Your task to perform on an android device: When is my next meeting? Image 0: 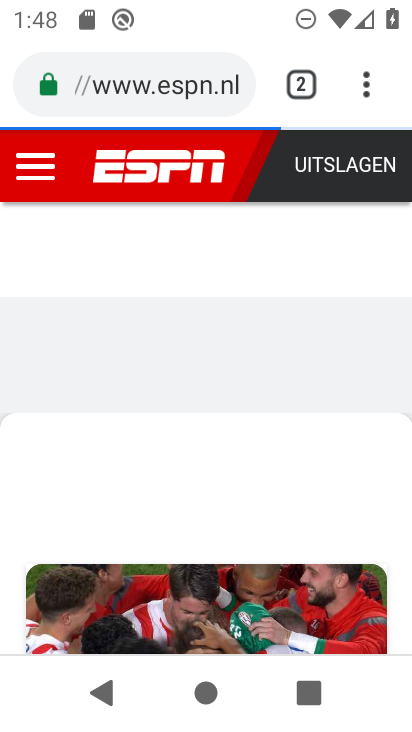
Step 0: press home button
Your task to perform on an android device: When is my next meeting? Image 1: 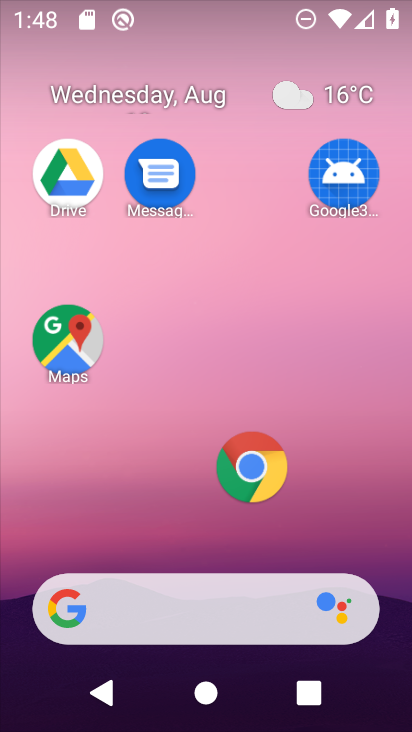
Step 1: click (168, 95)
Your task to perform on an android device: When is my next meeting? Image 2: 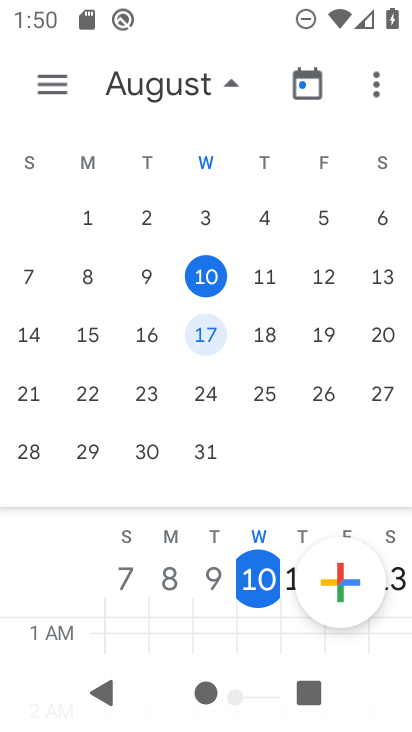
Step 2: task complete